Your task to perform on an android device: see creations saved in the google photos Image 0: 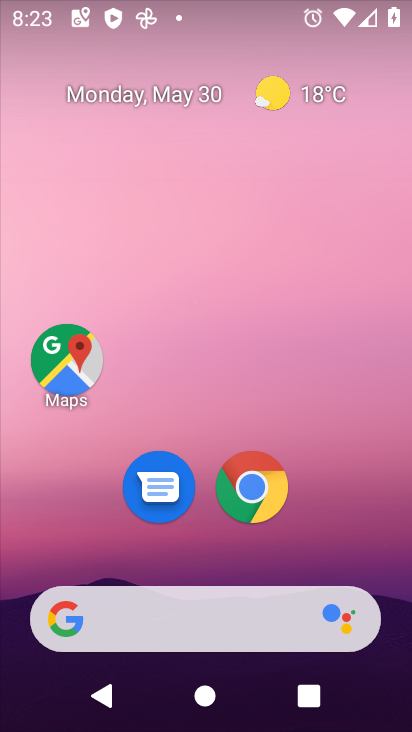
Step 0: press home button
Your task to perform on an android device: see creations saved in the google photos Image 1: 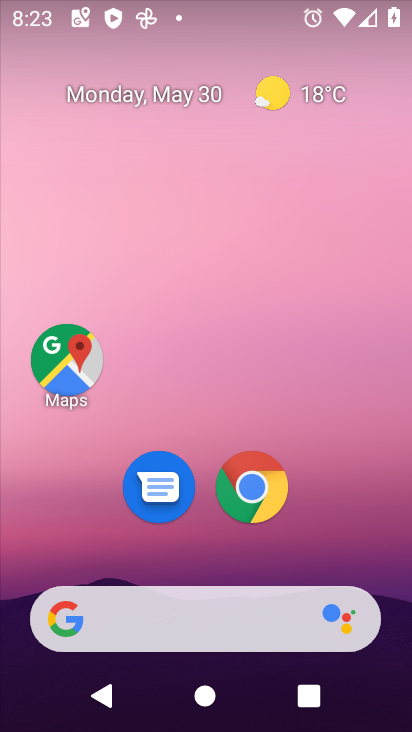
Step 1: drag from (336, 559) to (340, 183)
Your task to perform on an android device: see creations saved in the google photos Image 2: 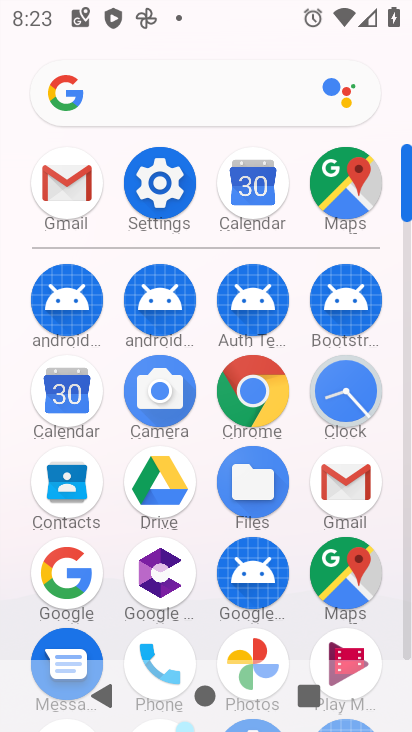
Step 2: click (255, 660)
Your task to perform on an android device: see creations saved in the google photos Image 3: 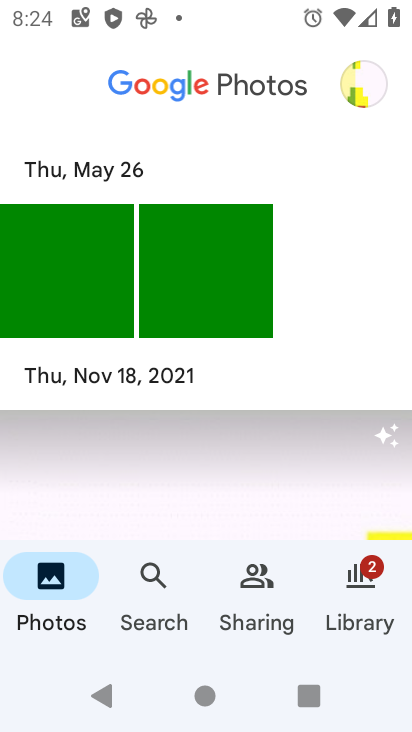
Step 3: click (161, 573)
Your task to perform on an android device: see creations saved in the google photos Image 4: 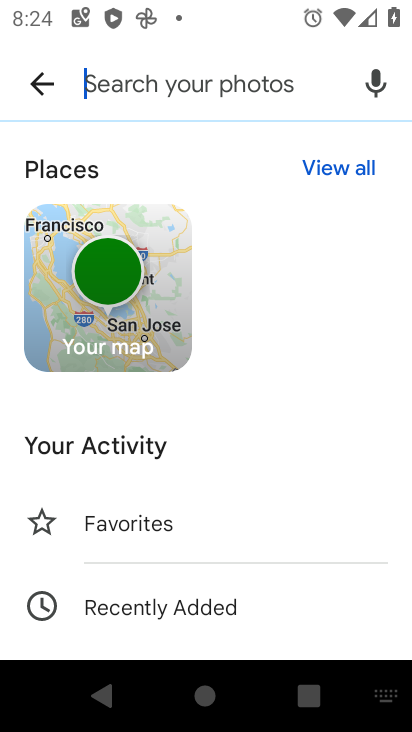
Step 4: drag from (349, 458) to (371, 151)
Your task to perform on an android device: see creations saved in the google photos Image 5: 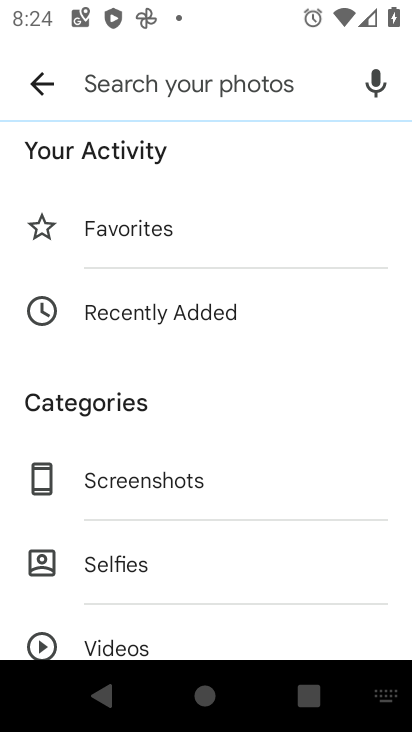
Step 5: drag from (315, 370) to (365, 264)
Your task to perform on an android device: see creations saved in the google photos Image 6: 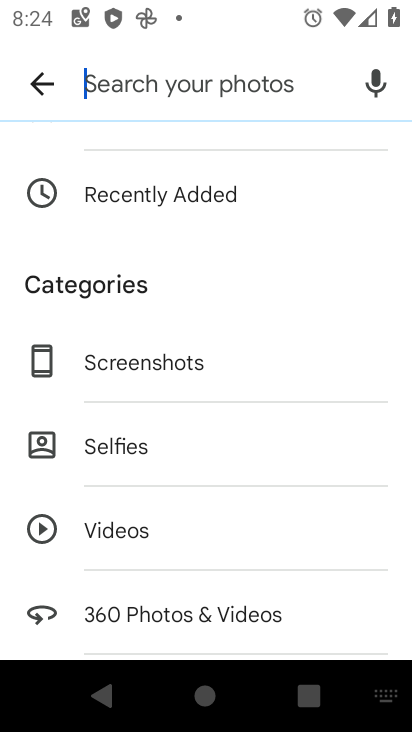
Step 6: drag from (315, 469) to (366, 279)
Your task to perform on an android device: see creations saved in the google photos Image 7: 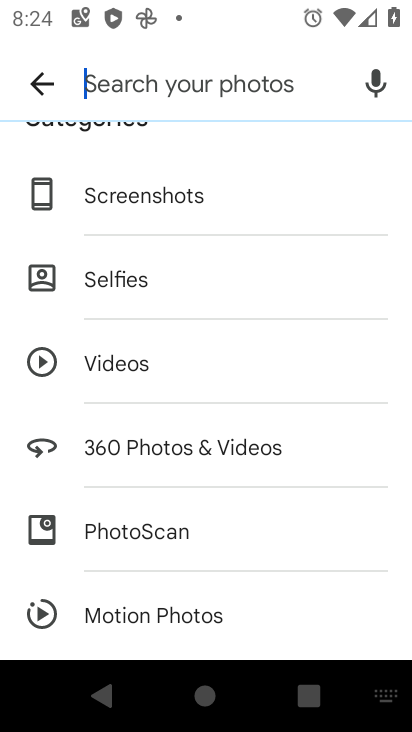
Step 7: drag from (245, 537) to (314, 280)
Your task to perform on an android device: see creations saved in the google photos Image 8: 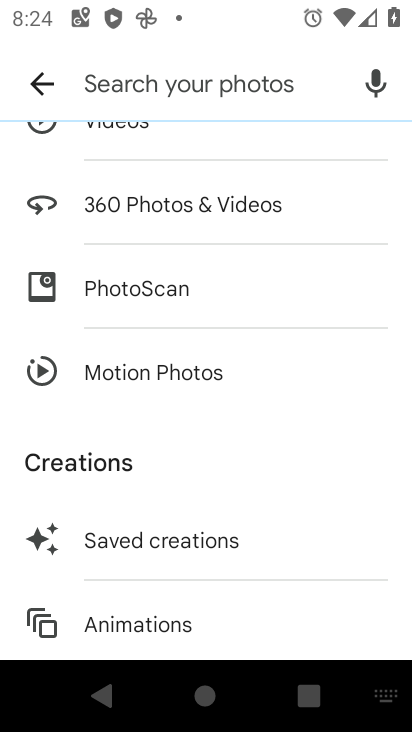
Step 8: click (72, 466)
Your task to perform on an android device: see creations saved in the google photos Image 9: 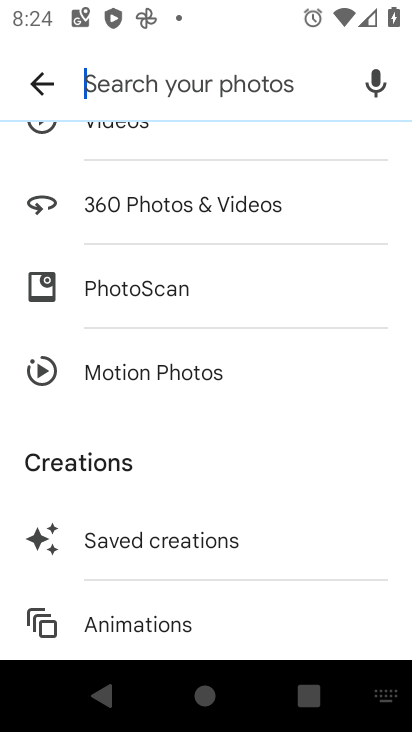
Step 9: drag from (262, 487) to (381, 210)
Your task to perform on an android device: see creations saved in the google photos Image 10: 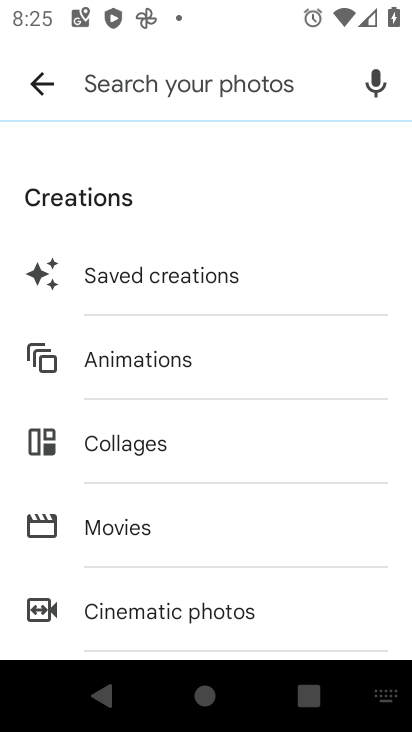
Step 10: click (178, 275)
Your task to perform on an android device: see creations saved in the google photos Image 11: 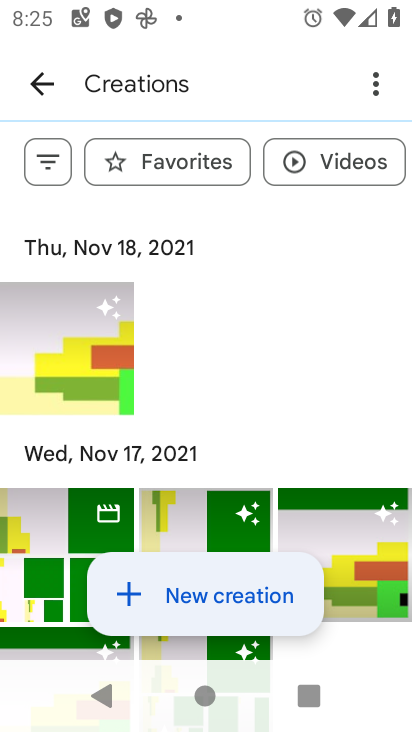
Step 11: task complete